Your task to perform on an android device: Go to privacy settings Image 0: 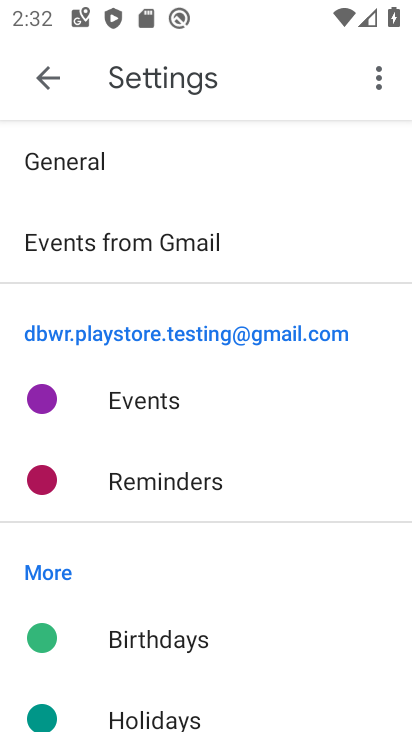
Step 0: press home button
Your task to perform on an android device: Go to privacy settings Image 1: 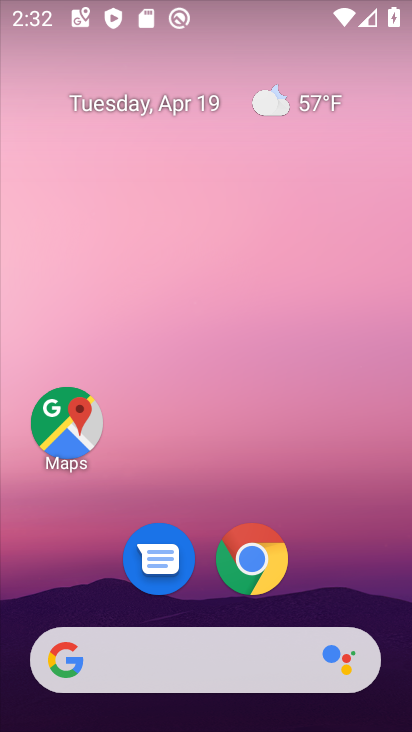
Step 1: drag from (206, 602) to (263, 63)
Your task to perform on an android device: Go to privacy settings Image 2: 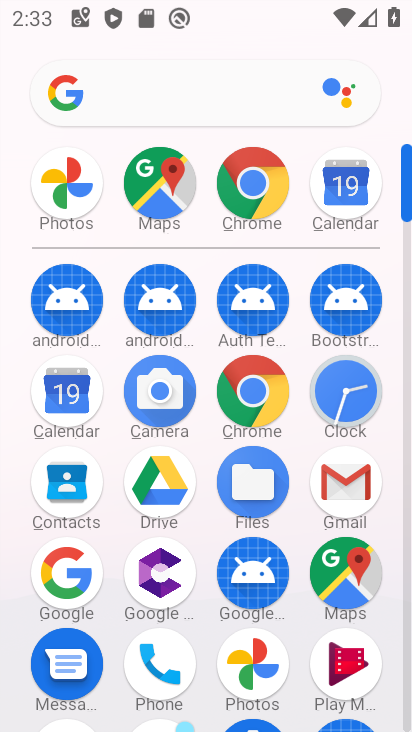
Step 2: drag from (201, 596) to (290, 125)
Your task to perform on an android device: Go to privacy settings Image 3: 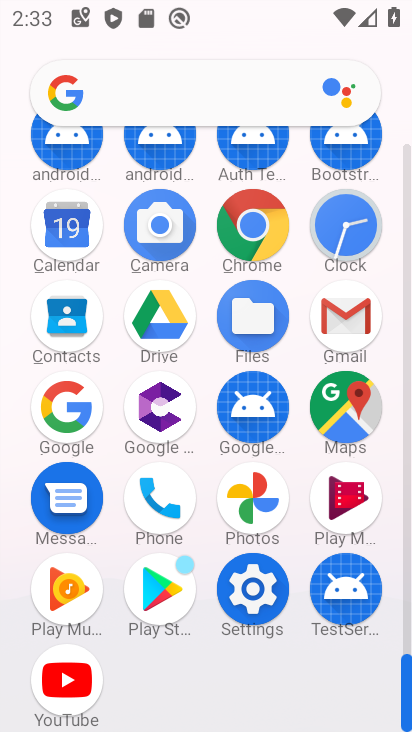
Step 3: click (267, 600)
Your task to perform on an android device: Go to privacy settings Image 4: 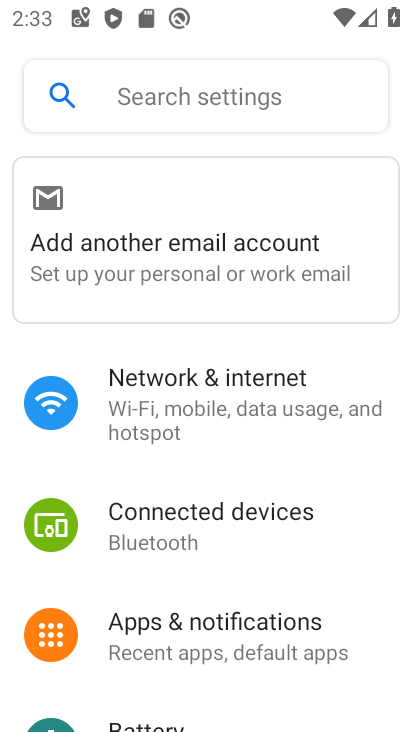
Step 4: drag from (177, 692) to (232, 181)
Your task to perform on an android device: Go to privacy settings Image 5: 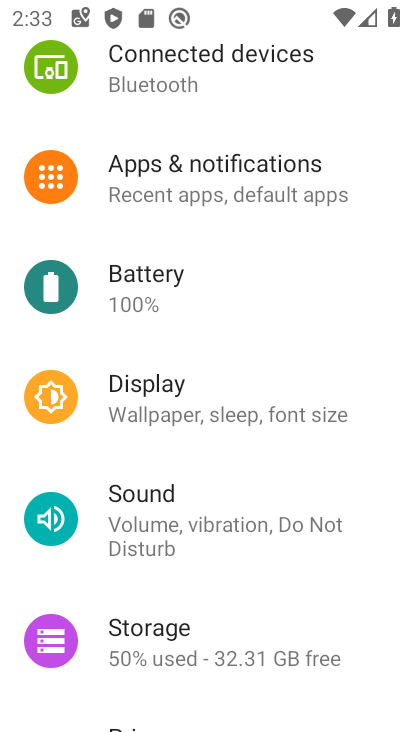
Step 5: drag from (169, 529) to (213, 27)
Your task to perform on an android device: Go to privacy settings Image 6: 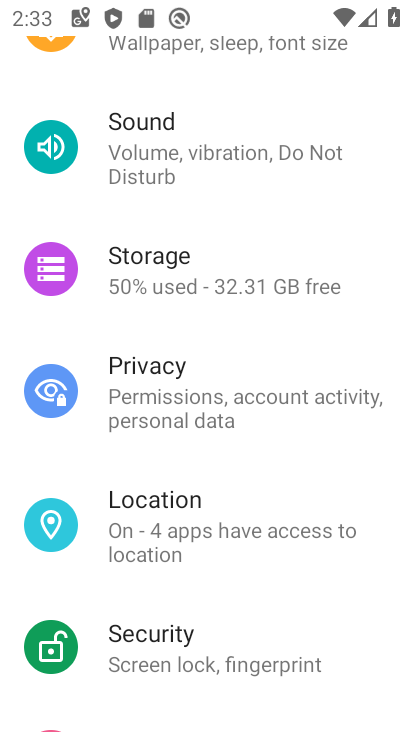
Step 6: click (186, 392)
Your task to perform on an android device: Go to privacy settings Image 7: 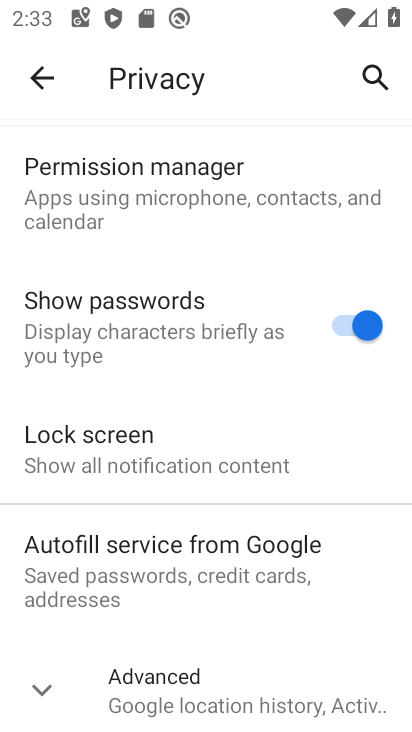
Step 7: click (45, 681)
Your task to perform on an android device: Go to privacy settings Image 8: 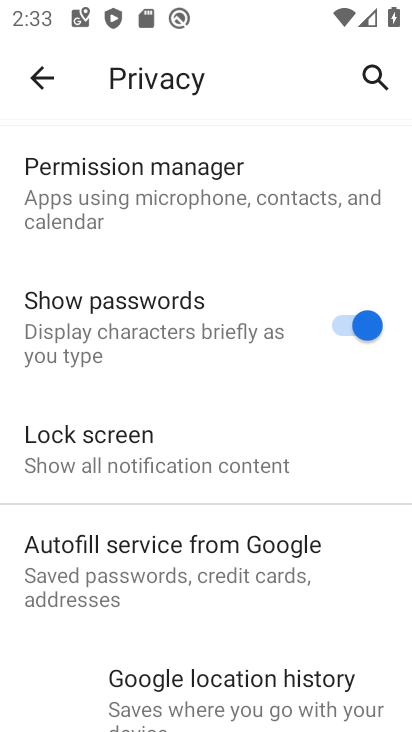
Step 8: task complete